Your task to perform on an android device: Open CNN.com Image 0: 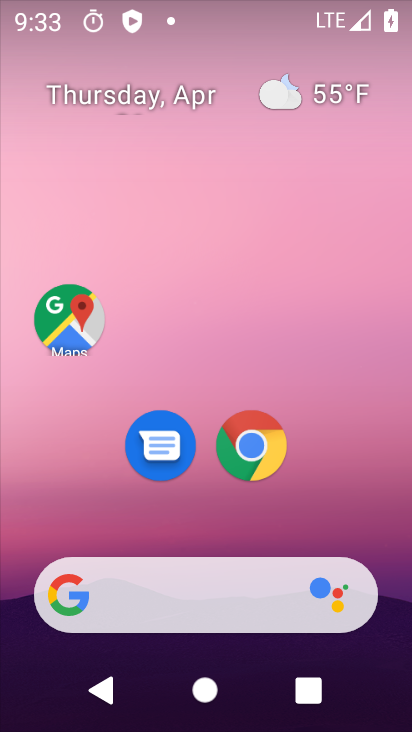
Step 0: click (262, 441)
Your task to perform on an android device: Open CNN.com Image 1: 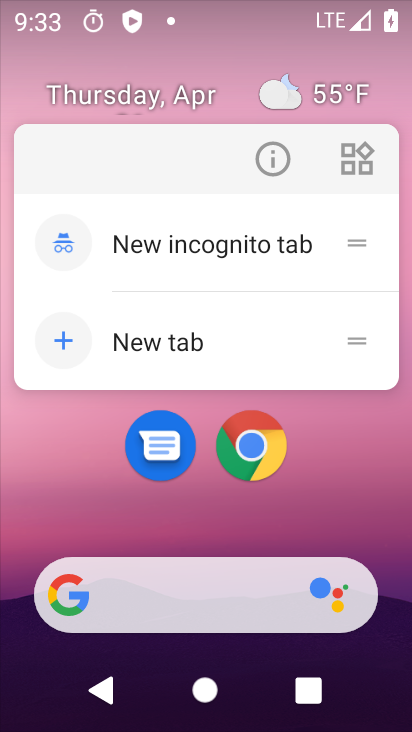
Step 1: click (252, 450)
Your task to perform on an android device: Open CNN.com Image 2: 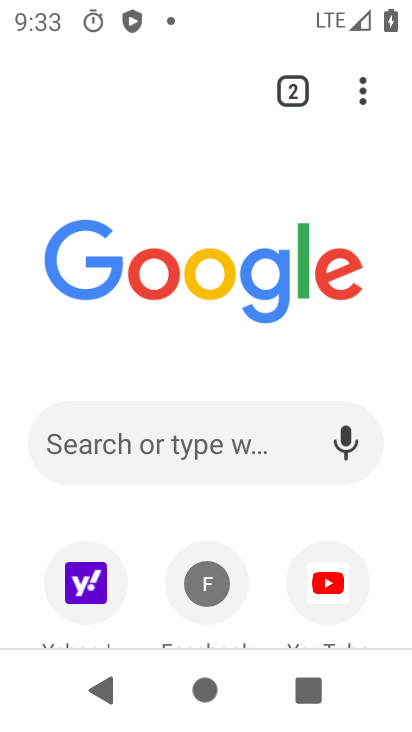
Step 2: click (114, 438)
Your task to perform on an android device: Open CNN.com Image 3: 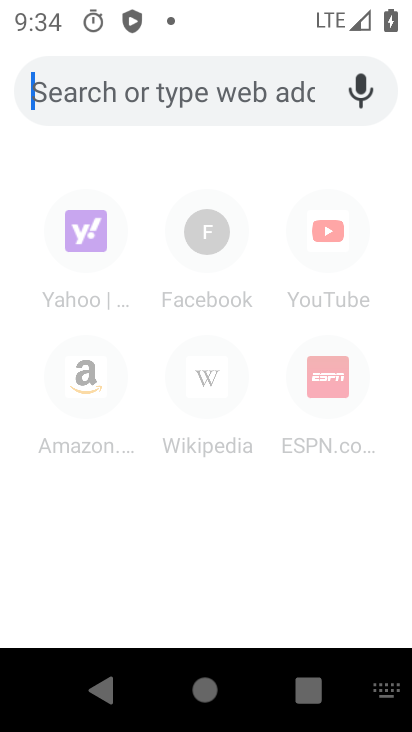
Step 3: type "cnn.com"
Your task to perform on an android device: Open CNN.com Image 4: 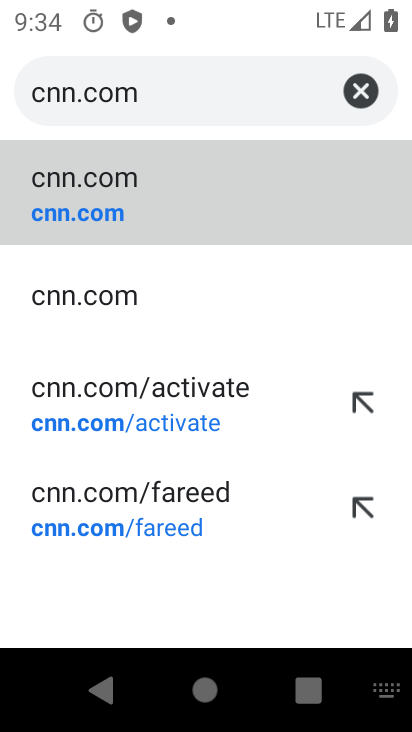
Step 4: click (88, 207)
Your task to perform on an android device: Open CNN.com Image 5: 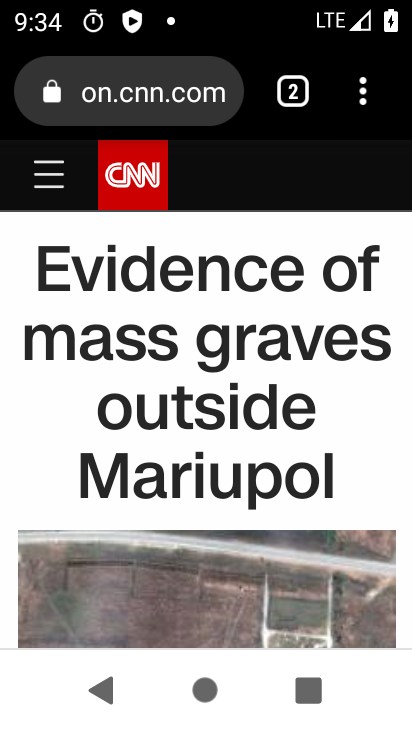
Step 5: task complete